Your task to perform on an android device: What's on my calendar today? Image 0: 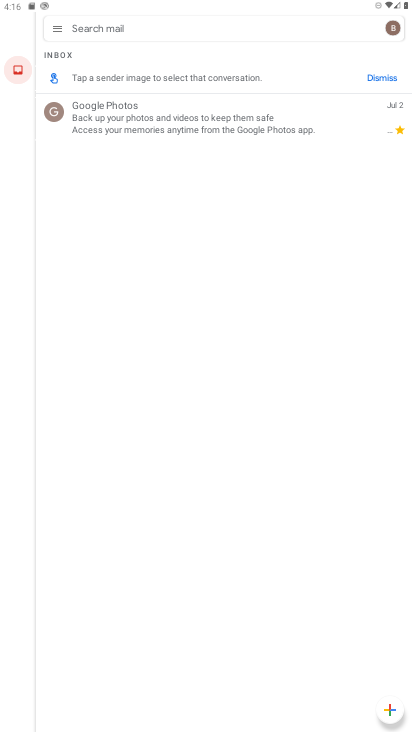
Step 0: press home button
Your task to perform on an android device: What's on my calendar today? Image 1: 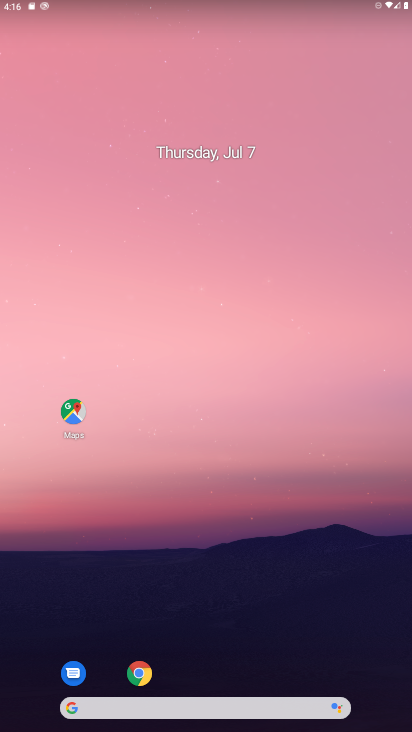
Step 1: drag from (228, 680) to (276, 57)
Your task to perform on an android device: What's on my calendar today? Image 2: 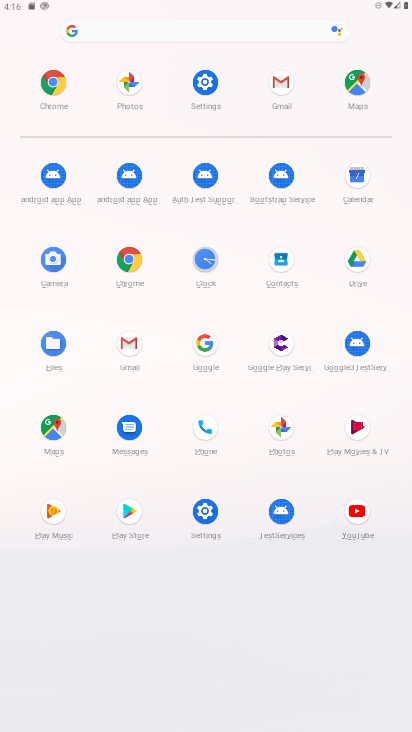
Step 2: click (358, 172)
Your task to perform on an android device: What's on my calendar today? Image 3: 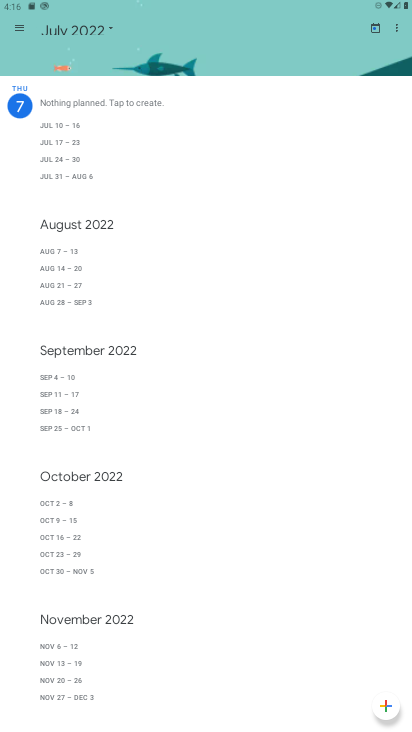
Step 3: click (24, 106)
Your task to perform on an android device: What's on my calendar today? Image 4: 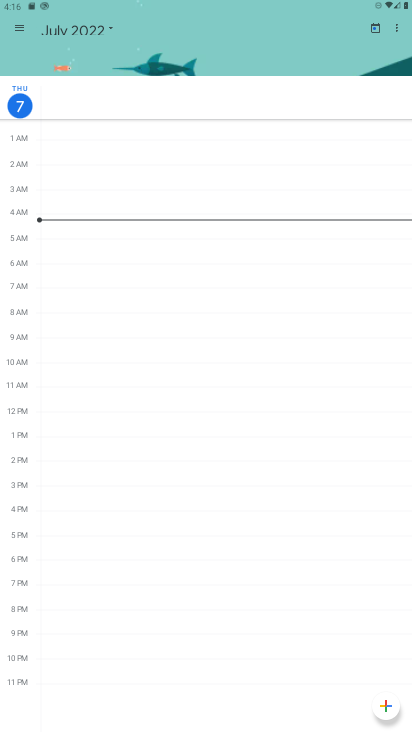
Step 4: task complete